Your task to perform on an android device: install app "Etsy: Buy & Sell Unique Items" Image 0: 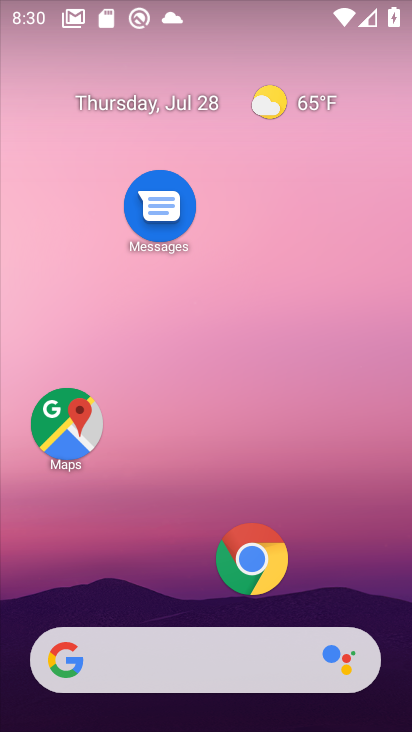
Step 0: drag from (166, 586) to (196, 9)
Your task to perform on an android device: install app "Etsy: Buy & Sell Unique Items" Image 1: 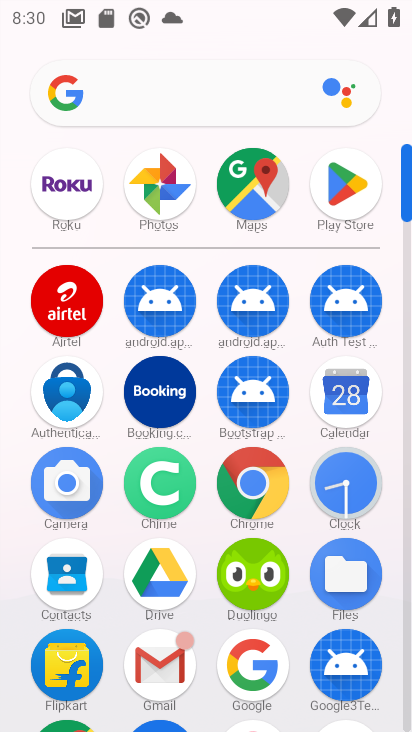
Step 1: click (361, 206)
Your task to perform on an android device: install app "Etsy: Buy & Sell Unique Items" Image 2: 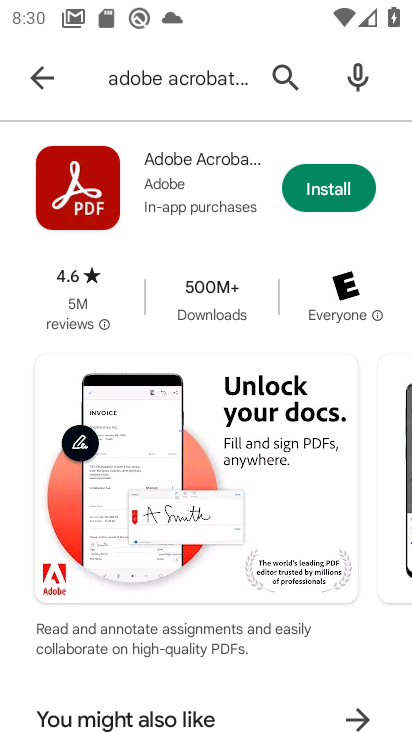
Step 2: click (187, 93)
Your task to perform on an android device: install app "Etsy: Buy & Sell Unique Items" Image 3: 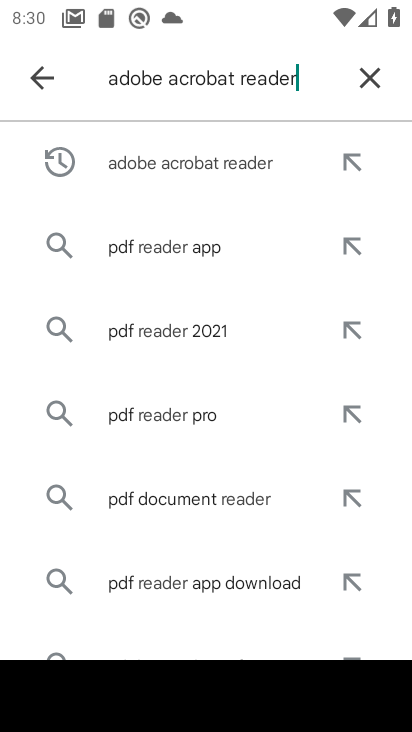
Step 3: click (374, 73)
Your task to perform on an android device: install app "Etsy: Buy & Sell Unique Items" Image 4: 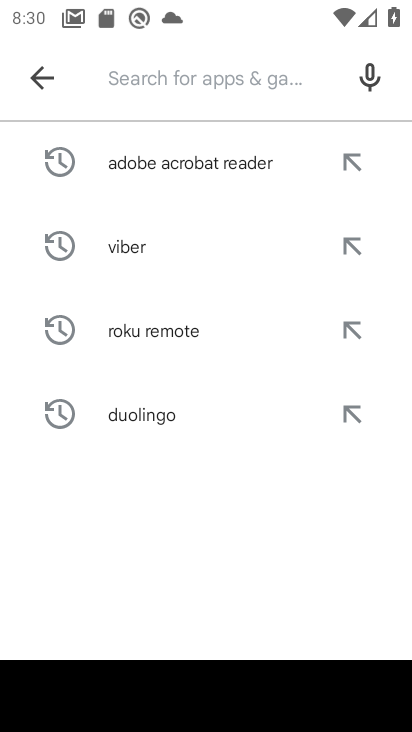
Step 4: type "ETSY"
Your task to perform on an android device: install app "Etsy: Buy & Sell Unique Items" Image 5: 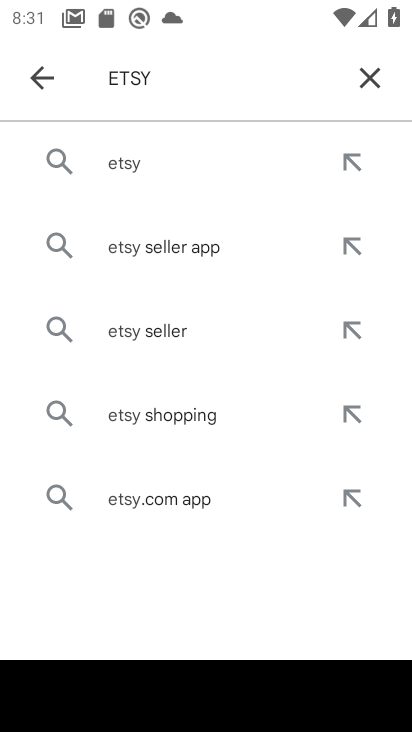
Step 5: click (127, 175)
Your task to perform on an android device: install app "Etsy: Buy & Sell Unique Items" Image 6: 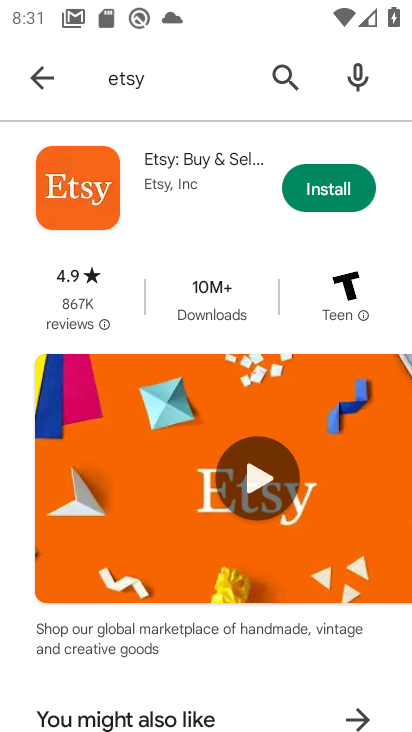
Step 6: click (331, 180)
Your task to perform on an android device: install app "Etsy: Buy & Sell Unique Items" Image 7: 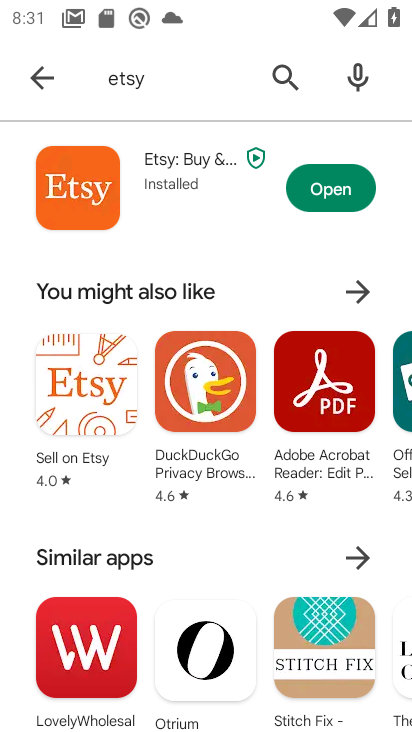
Step 7: task complete